Your task to perform on an android device: Do I have any events tomorrow? Image 0: 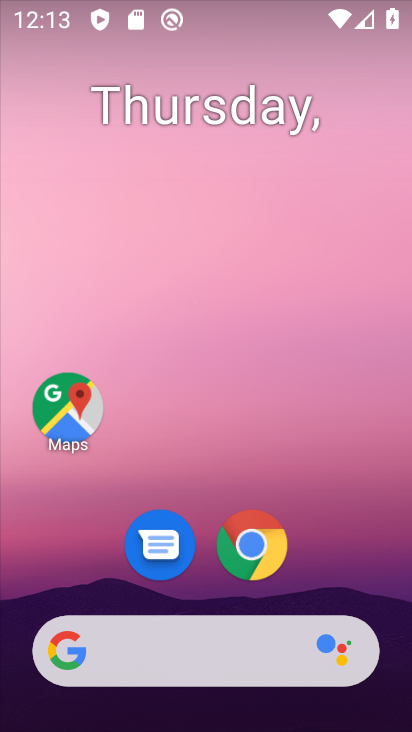
Step 0: drag from (234, 468) to (270, 196)
Your task to perform on an android device: Do I have any events tomorrow? Image 1: 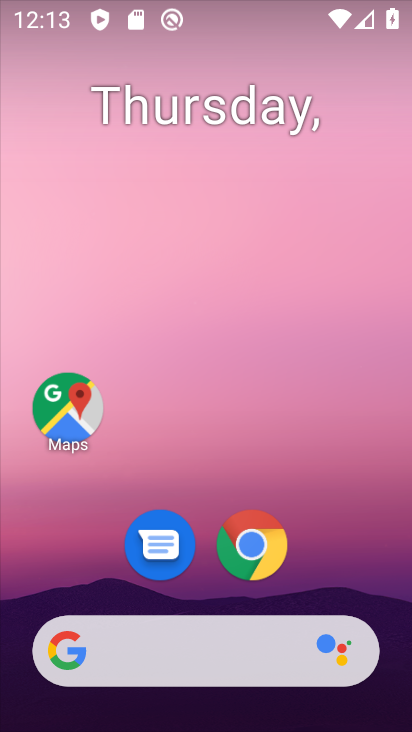
Step 1: drag from (237, 468) to (240, 141)
Your task to perform on an android device: Do I have any events tomorrow? Image 2: 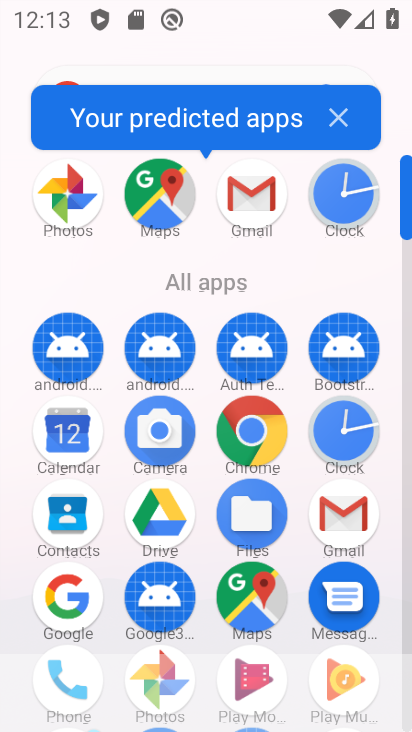
Step 2: click (72, 442)
Your task to perform on an android device: Do I have any events tomorrow? Image 3: 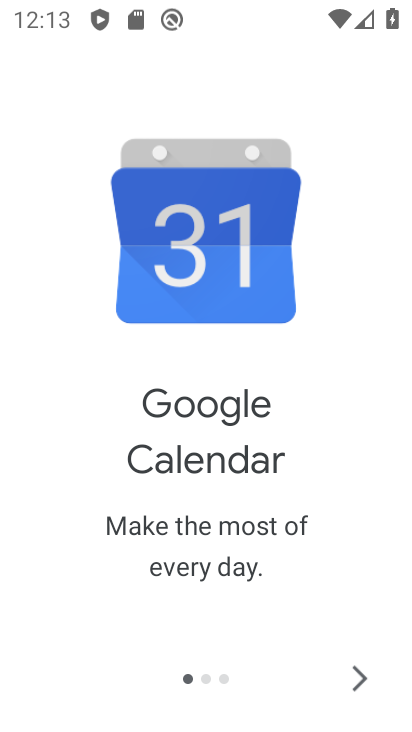
Step 3: click (359, 690)
Your task to perform on an android device: Do I have any events tomorrow? Image 4: 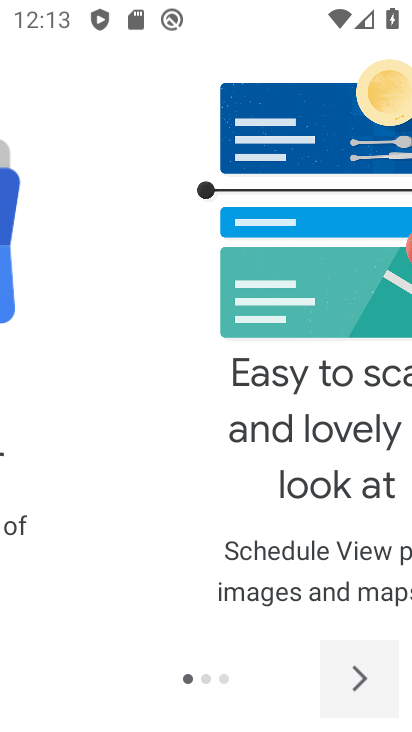
Step 4: click (358, 690)
Your task to perform on an android device: Do I have any events tomorrow? Image 5: 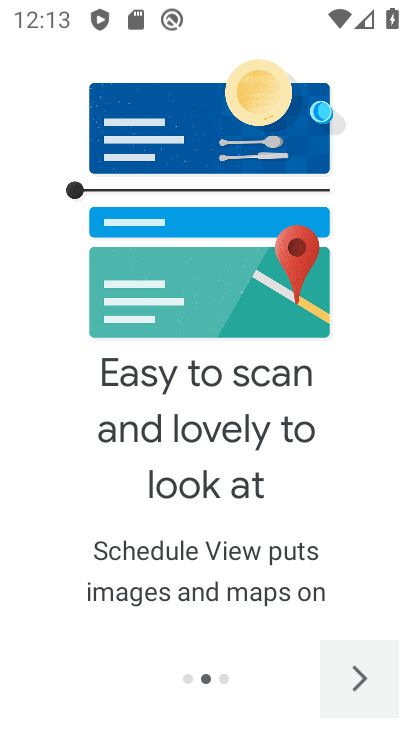
Step 5: click (358, 690)
Your task to perform on an android device: Do I have any events tomorrow? Image 6: 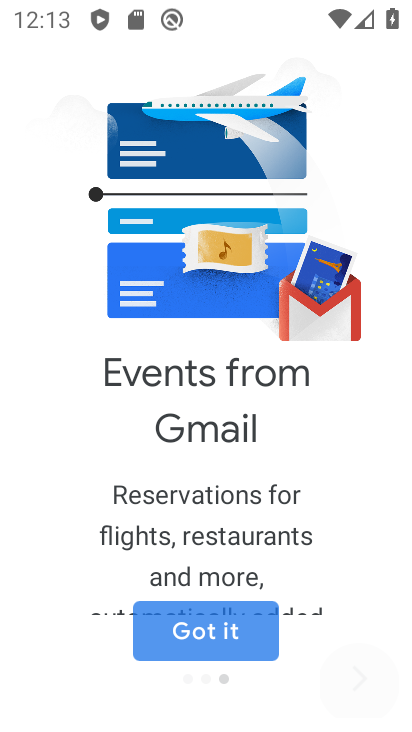
Step 6: click (358, 690)
Your task to perform on an android device: Do I have any events tomorrow? Image 7: 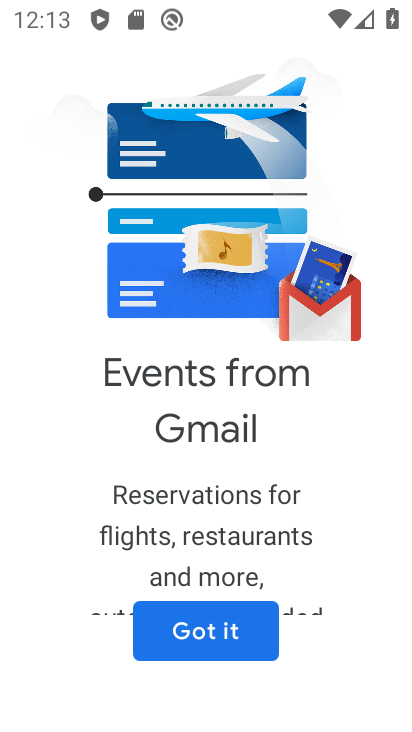
Step 7: click (249, 650)
Your task to perform on an android device: Do I have any events tomorrow? Image 8: 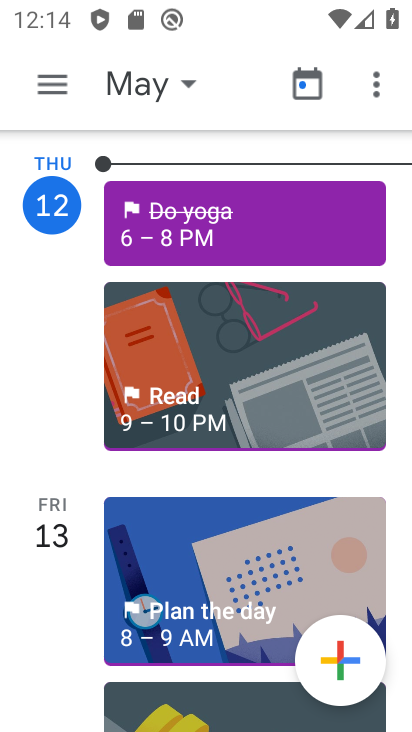
Step 8: click (207, 581)
Your task to perform on an android device: Do I have any events tomorrow? Image 9: 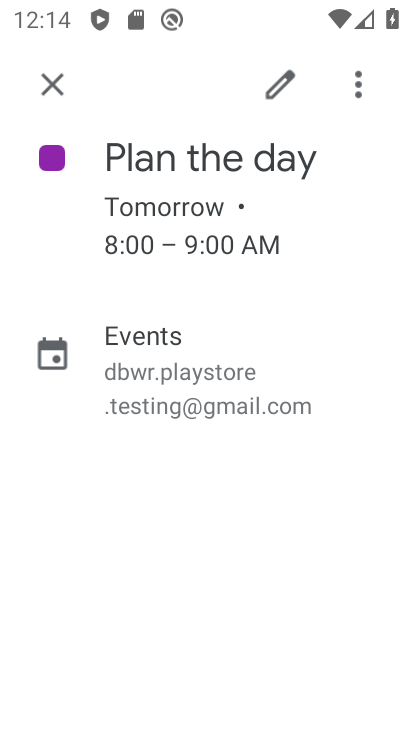
Step 9: task complete